Your task to perform on an android device: turn on the 12-hour format for clock Image 0: 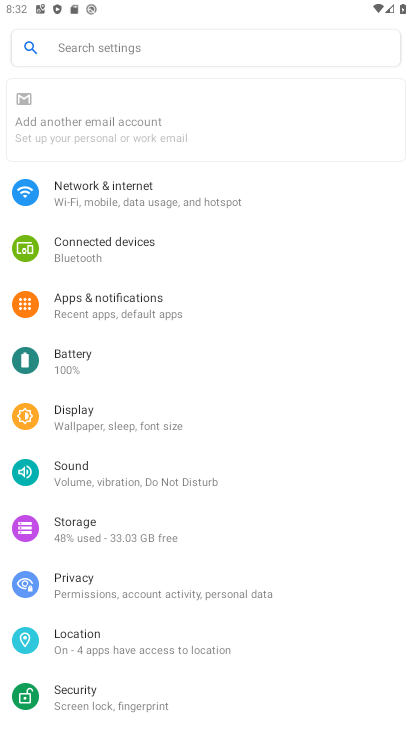
Step 0: press home button
Your task to perform on an android device: turn on the 12-hour format for clock Image 1: 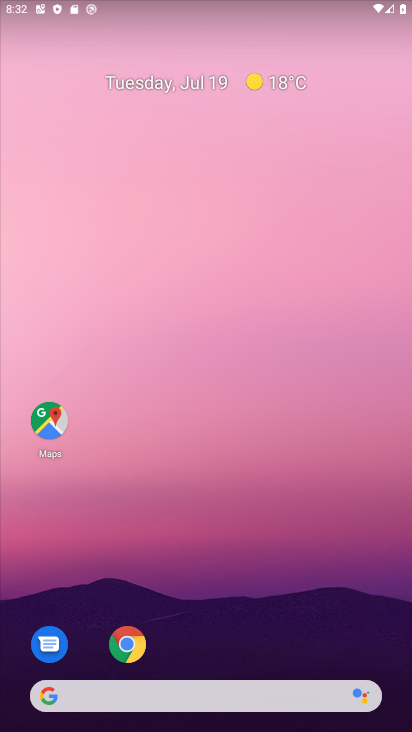
Step 1: drag from (210, 731) to (210, 184)
Your task to perform on an android device: turn on the 12-hour format for clock Image 2: 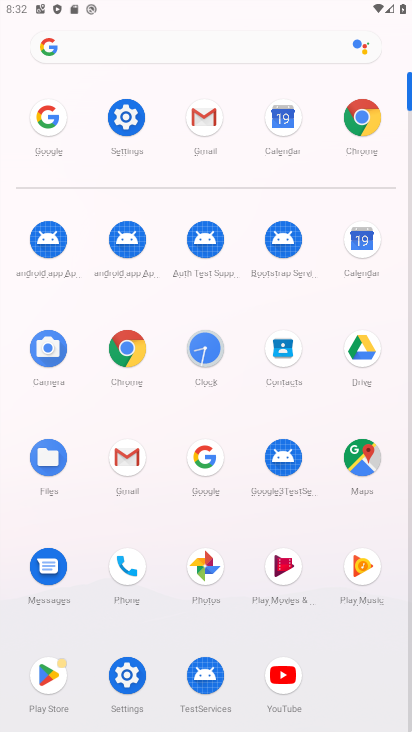
Step 2: click (213, 344)
Your task to perform on an android device: turn on the 12-hour format for clock Image 3: 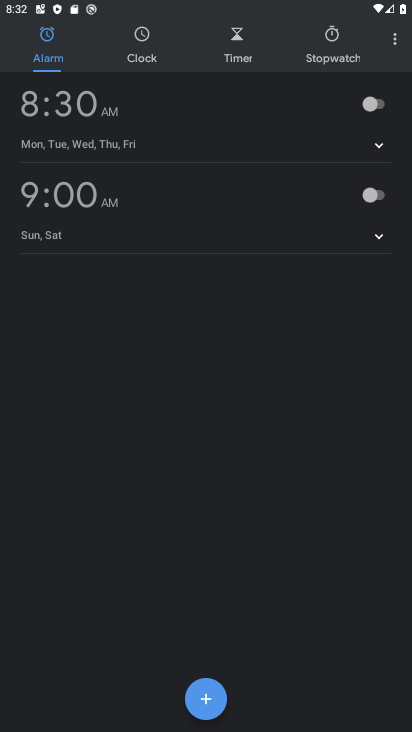
Step 3: click (395, 41)
Your task to perform on an android device: turn on the 12-hour format for clock Image 4: 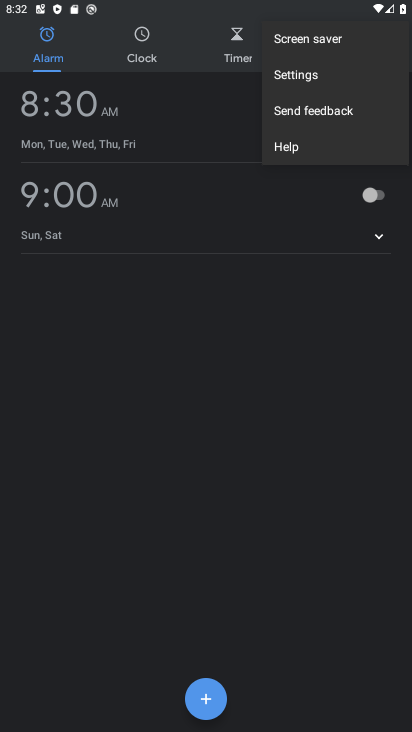
Step 4: click (305, 72)
Your task to perform on an android device: turn on the 12-hour format for clock Image 5: 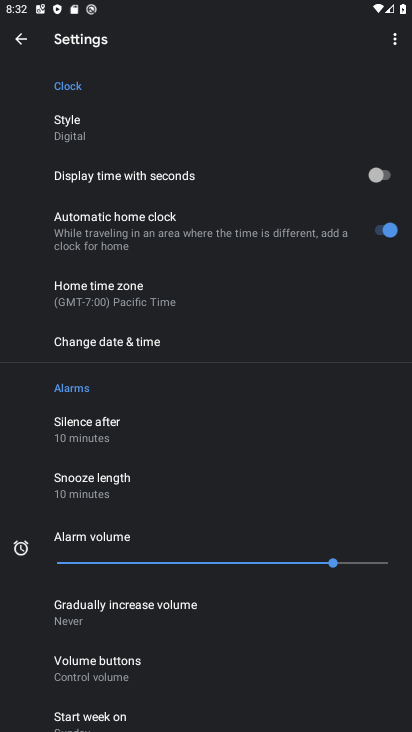
Step 5: click (95, 356)
Your task to perform on an android device: turn on the 12-hour format for clock Image 6: 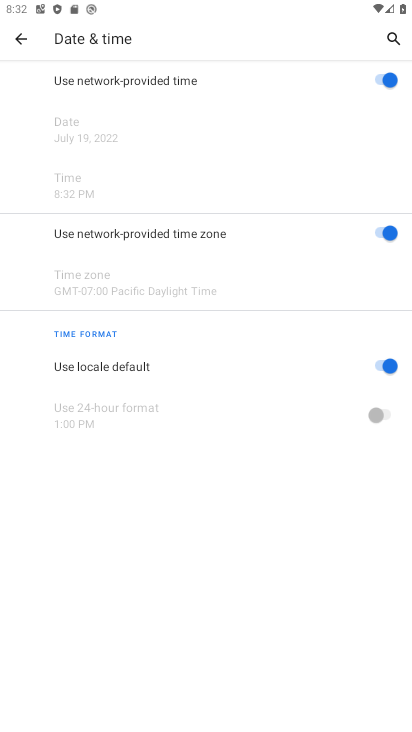
Step 6: task complete